Your task to perform on an android device: Search for asus rog on target, select the first entry, add it to the cart, then select checkout. Image 0: 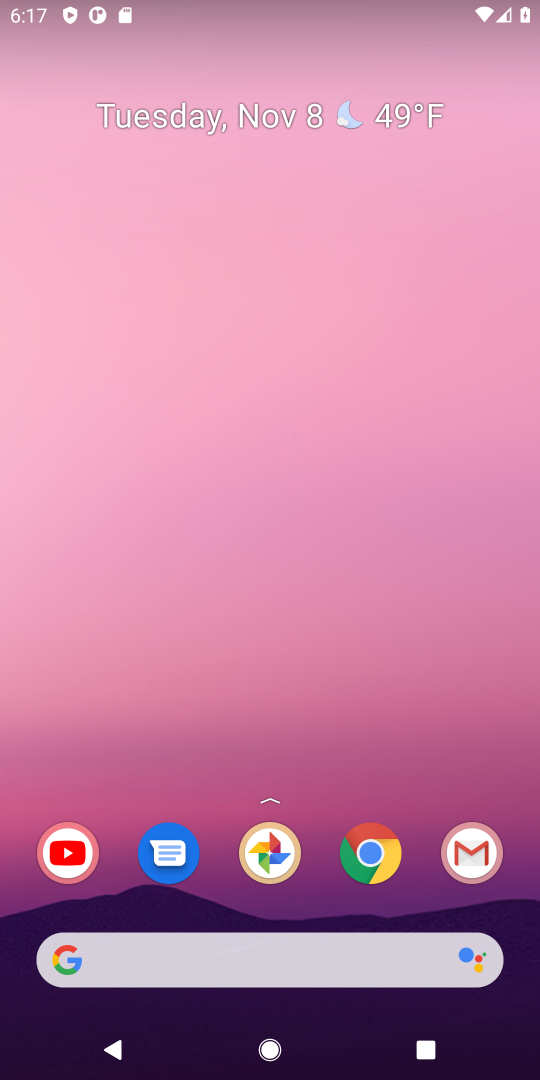
Step 0: click (372, 854)
Your task to perform on an android device: Search for asus rog on target, select the first entry, add it to the cart, then select checkout. Image 1: 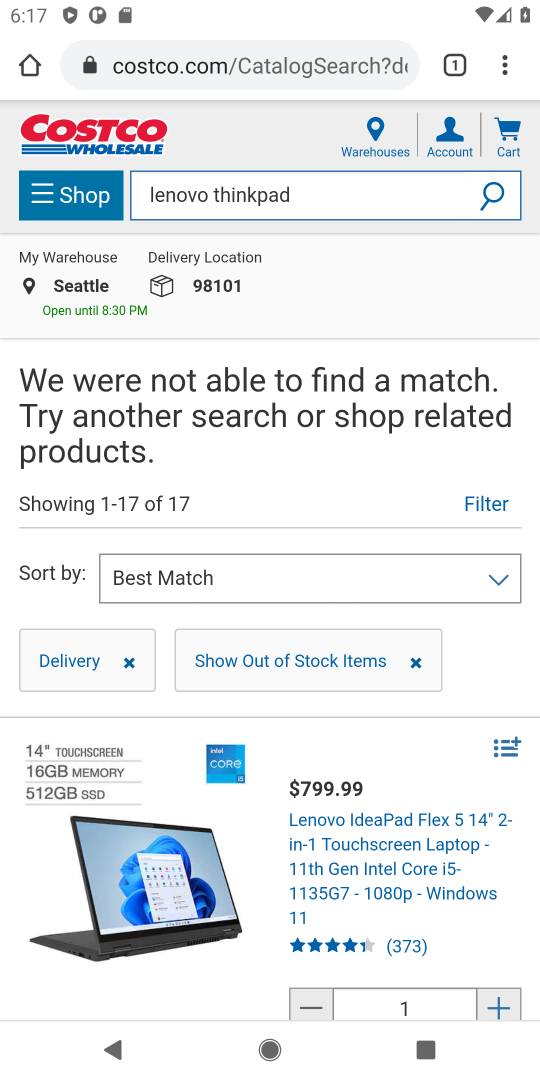
Step 1: click (294, 57)
Your task to perform on an android device: Search for asus rog on target, select the first entry, add it to the cart, then select checkout. Image 2: 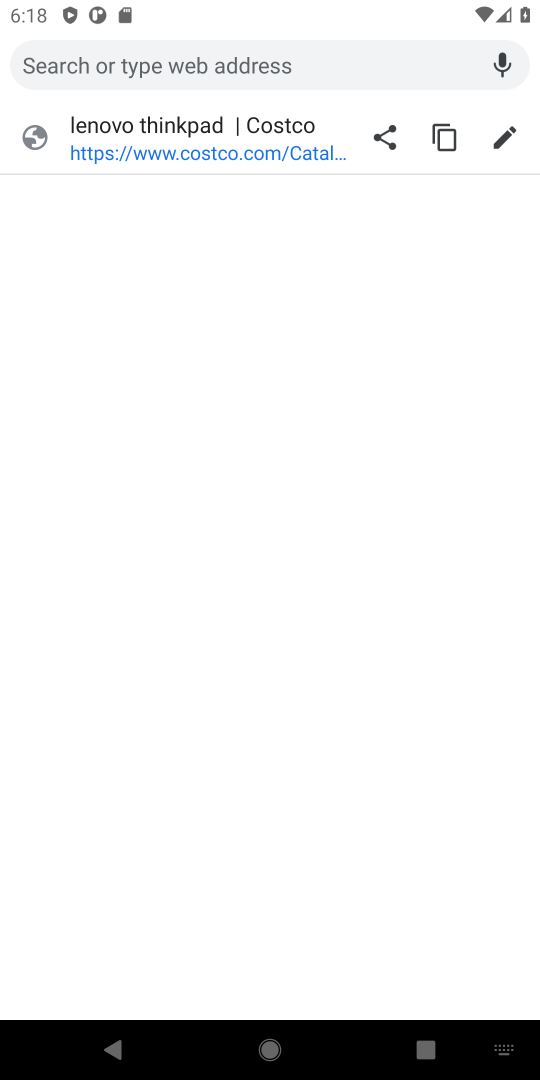
Step 2: type "target"
Your task to perform on an android device: Search for asus rog on target, select the first entry, add it to the cart, then select checkout. Image 3: 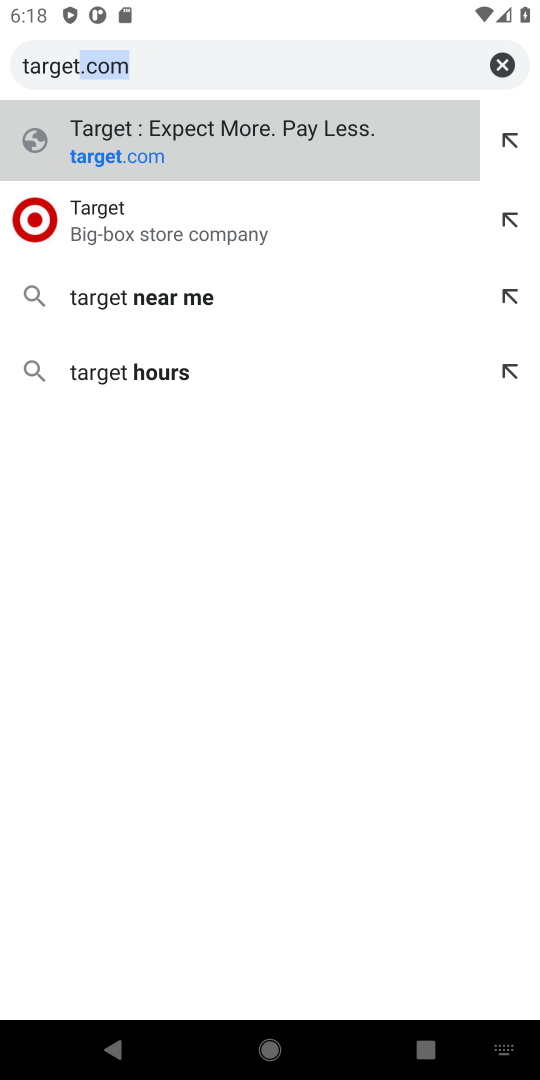
Step 3: click (172, 218)
Your task to perform on an android device: Search for asus rog on target, select the first entry, add it to the cart, then select checkout. Image 4: 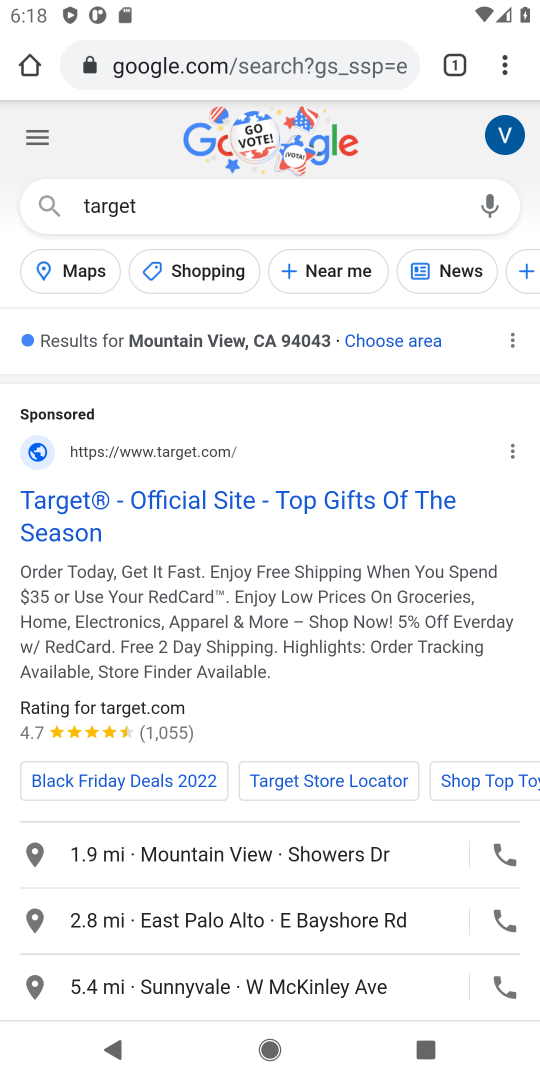
Step 4: drag from (268, 691) to (315, 464)
Your task to perform on an android device: Search for asus rog on target, select the first entry, add it to the cart, then select checkout. Image 5: 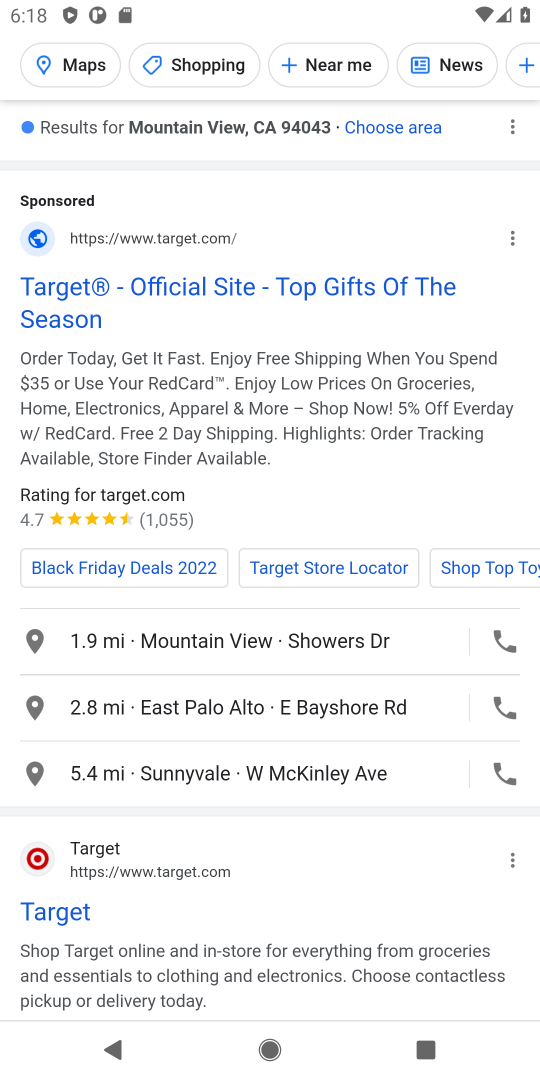
Step 5: click (148, 903)
Your task to perform on an android device: Search for asus rog on target, select the first entry, add it to the cart, then select checkout. Image 6: 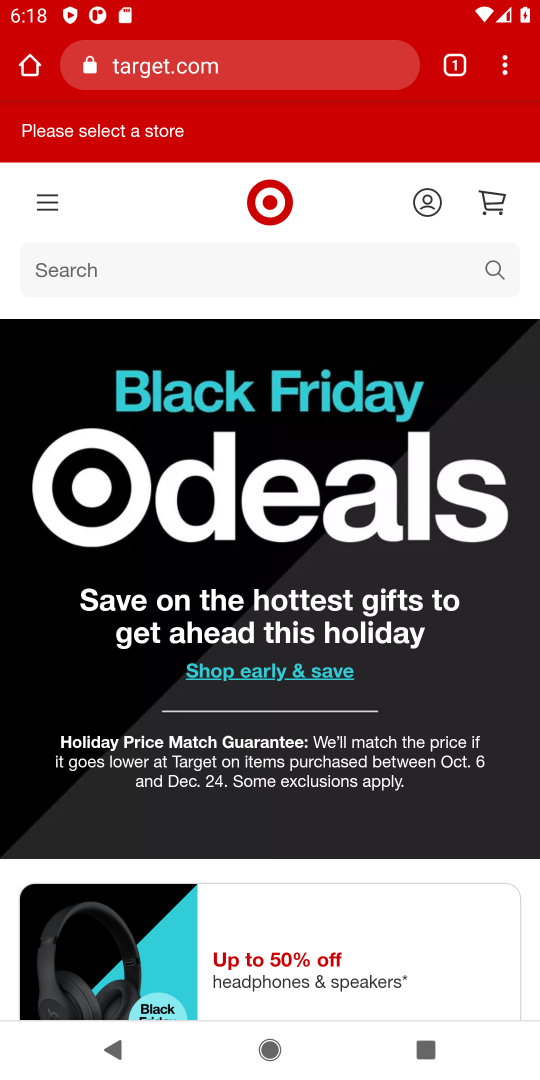
Step 6: click (231, 287)
Your task to perform on an android device: Search for asus rog on target, select the first entry, add it to the cart, then select checkout. Image 7: 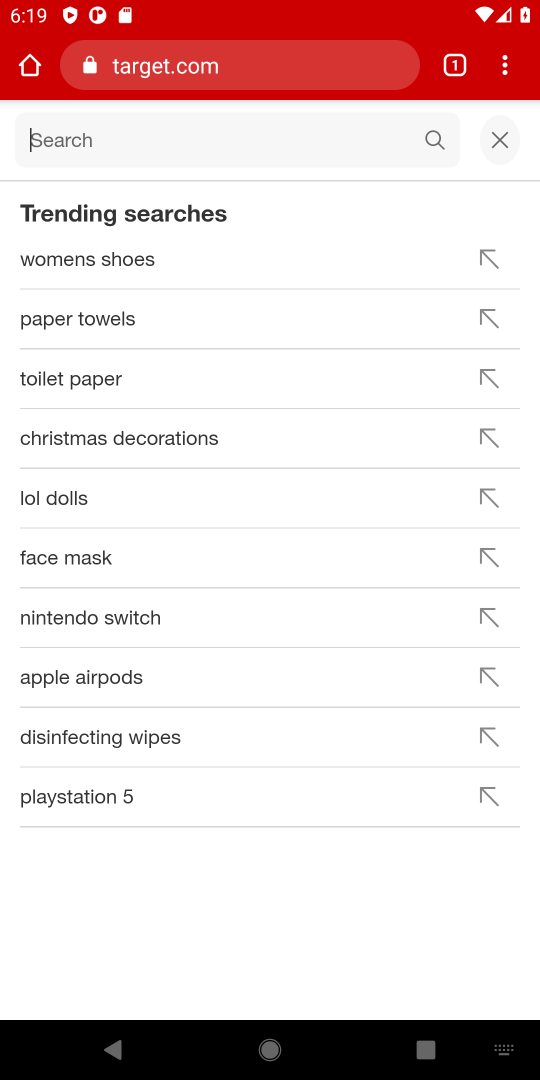
Step 7: type "asus rog"
Your task to perform on an android device: Search for asus rog on target, select the first entry, add it to the cart, then select checkout. Image 8: 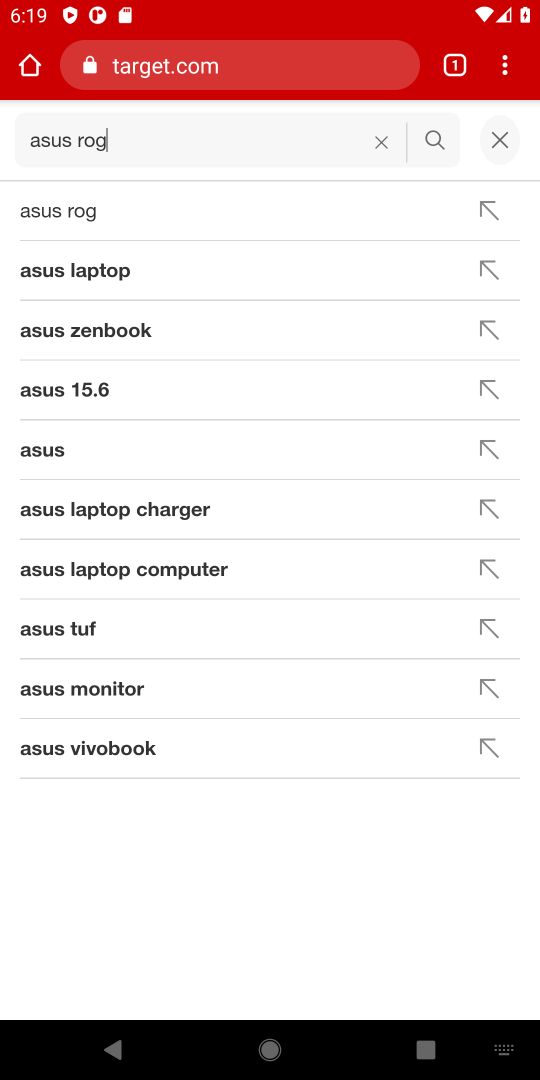
Step 8: click (425, 137)
Your task to perform on an android device: Search for asus rog on target, select the first entry, add it to the cart, then select checkout. Image 9: 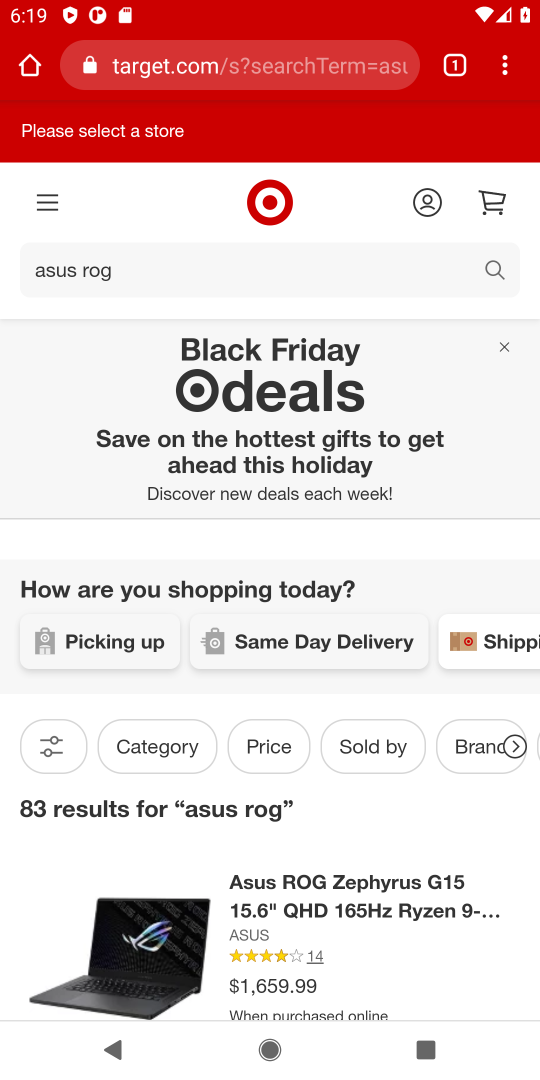
Step 9: click (369, 887)
Your task to perform on an android device: Search for asus rog on target, select the first entry, add it to the cart, then select checkout. Image 10: 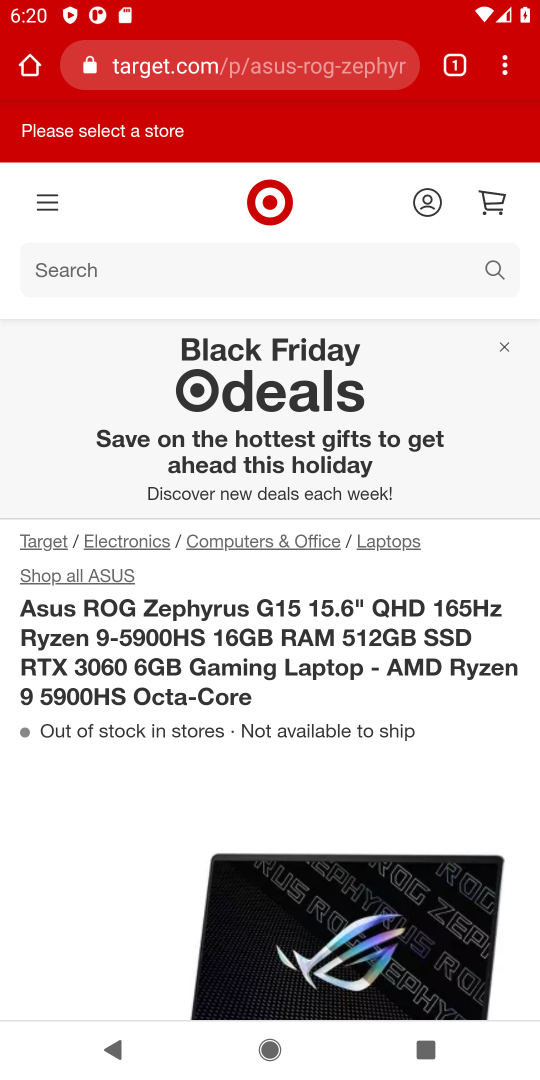
Step 10: drag from (353, 821) to (477, 391)
Your task to perform on an android device: Search for asus rog on target, select the first entry, add it to the cart, then select checkout. Image 11: 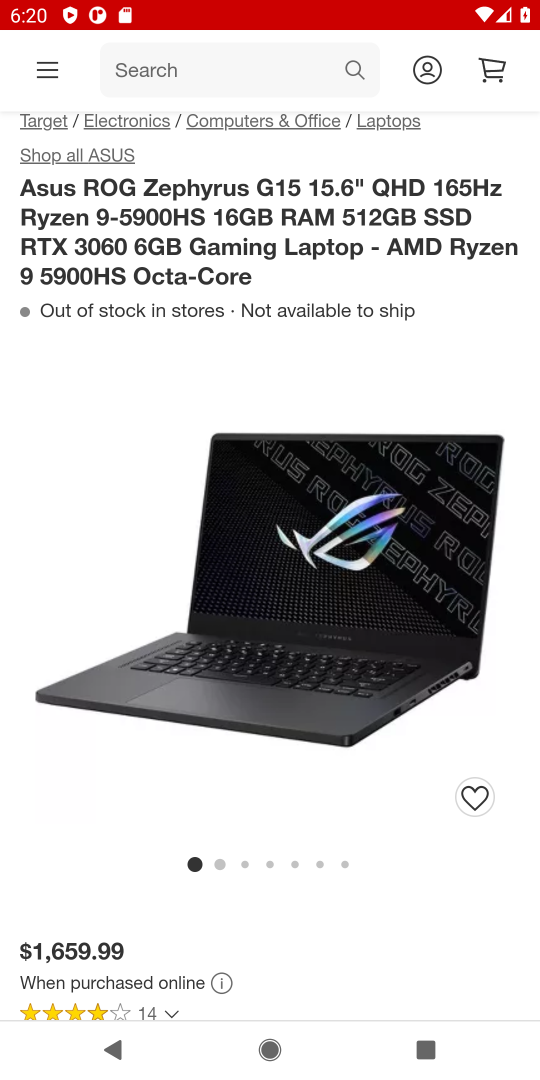
Step 11: drag from (302, 711) to (389, 211)
Your task to perform on an android device: Search for asus rog on target, select the first entry, add it to the cart, then select checkout. Image 12: 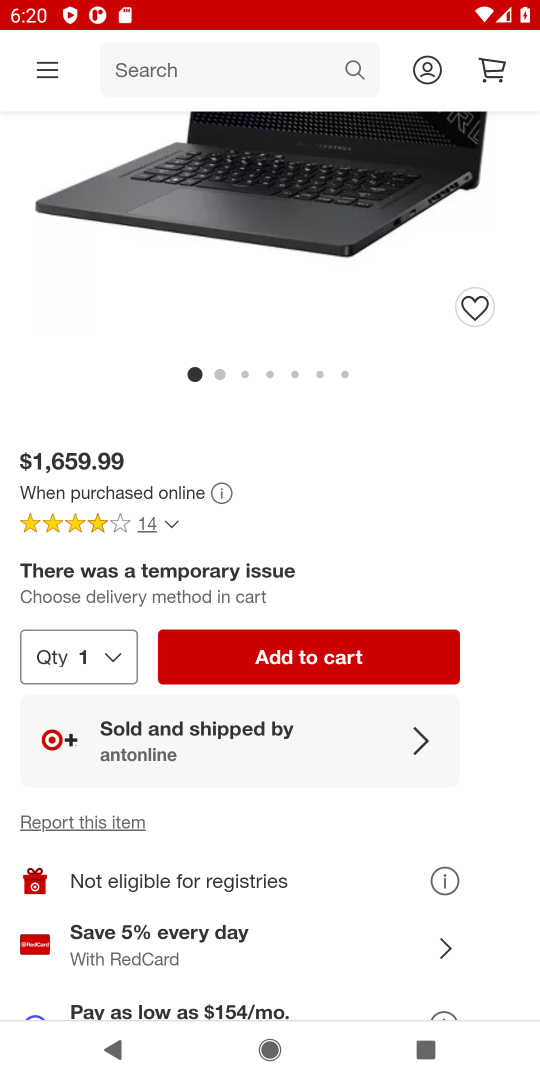
Step 12: click (297, 652)
Your task to perform on an android device: Search for asus rog on target, select the first entry, add it to the cart, then select checkout. Image 13: 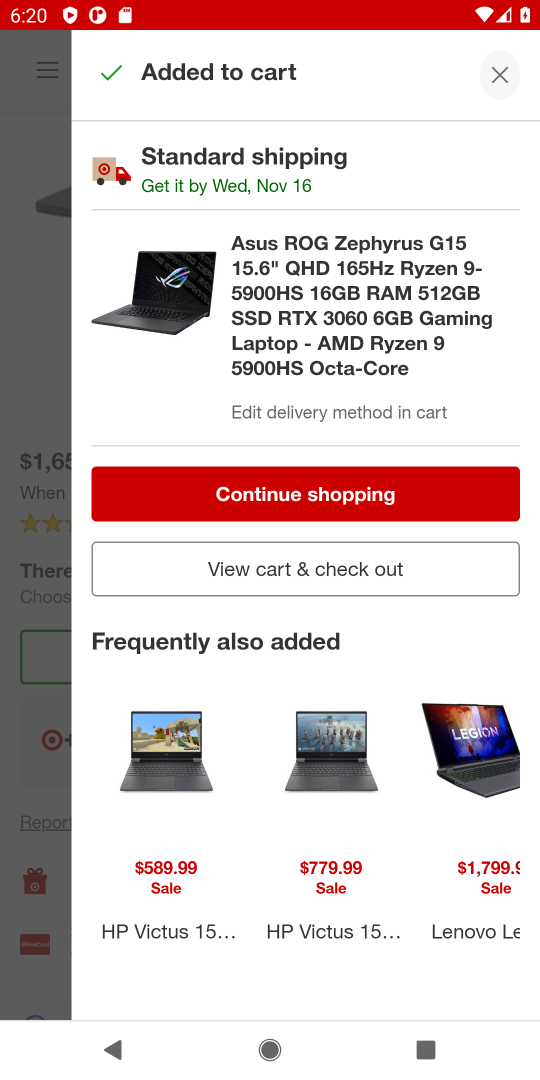
Step 13: click (303, 571)
Your task to perform on an android device: Search for asus rog on target, select the first entry, add it to the cart, then select checkout. Image 14: 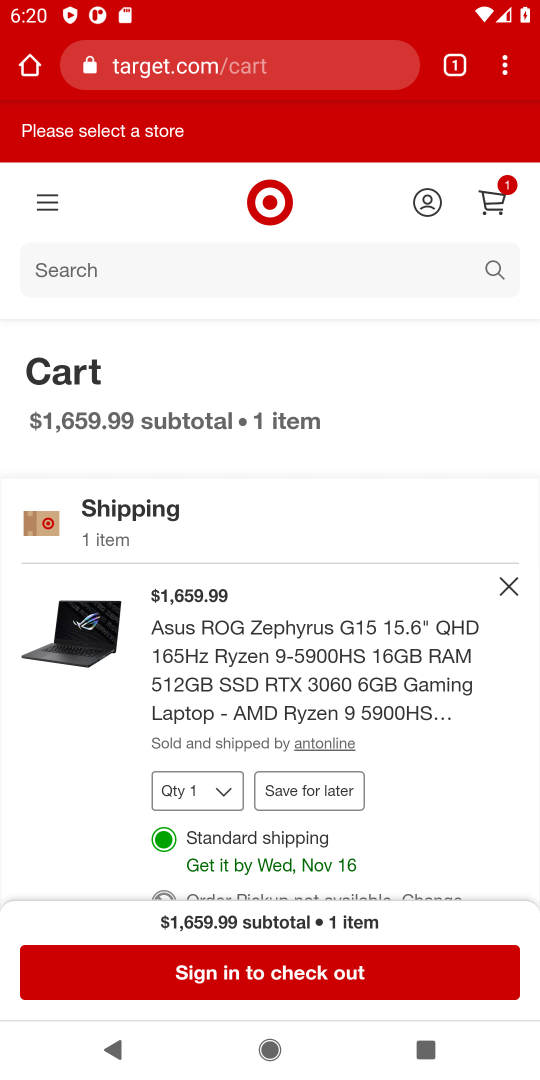
Step 14: click (235, 984)
Your task to perform on an android device: Search for asus rog on target, select the first entry, add it to the cart, then select checkout. Image 15: 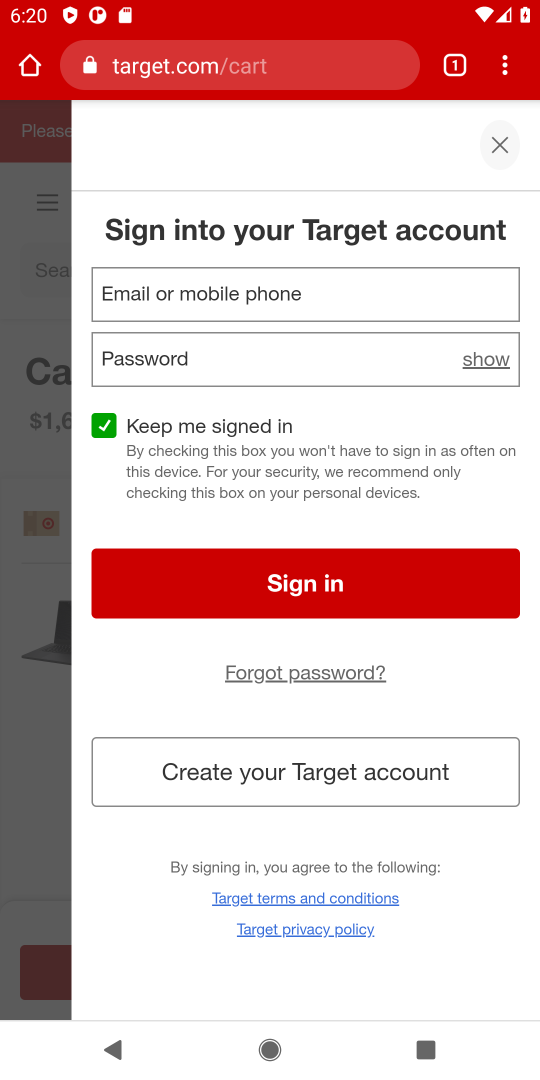
Step 15: task complete